Your task to perform on an android device: check data usage Image 0: 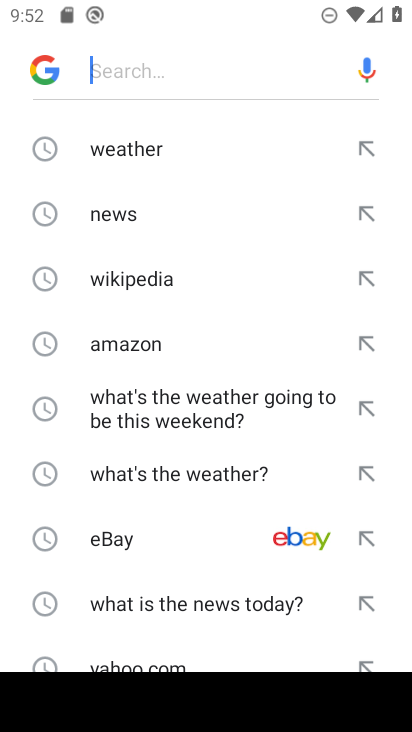
Step 0: press back button
Your task to perform on an android device: check data usage Image 1: 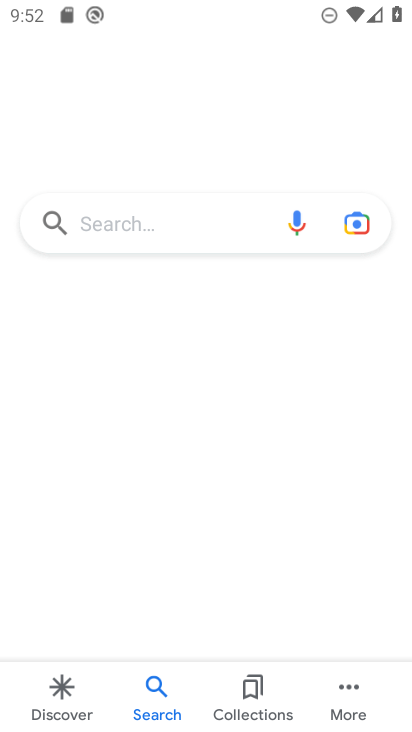
Step 1: press back button
Your task to perform on an android device: check data usage Image 2: 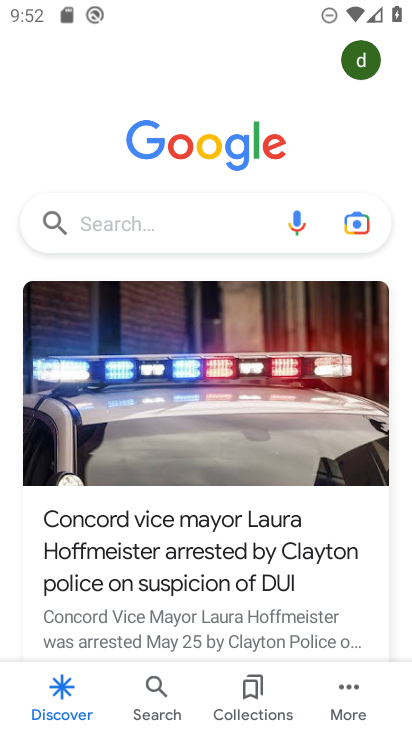
Step 2: press back button
Your task to perform on an android device: check data usage Image 3: 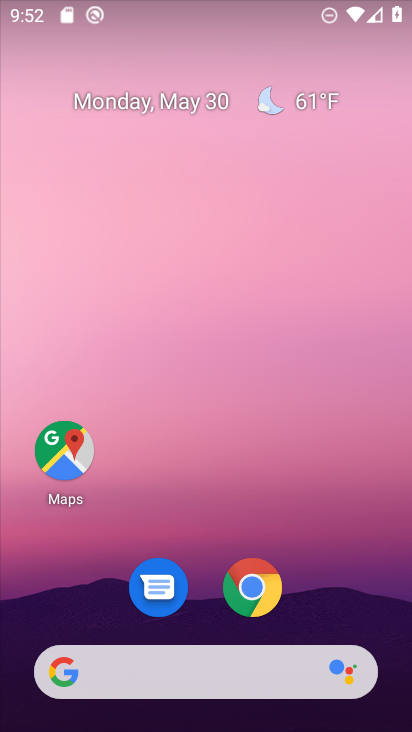
Step 3: drag from (214, 627) to (164, 32)
Your task to perform on an android device: check data usage Image 4: 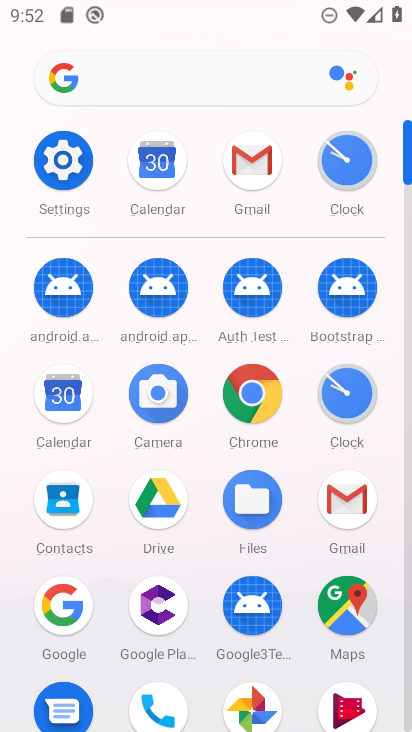
Step 4: click (62, 155)
Your task to perform on an android device: check data usage Image 5: 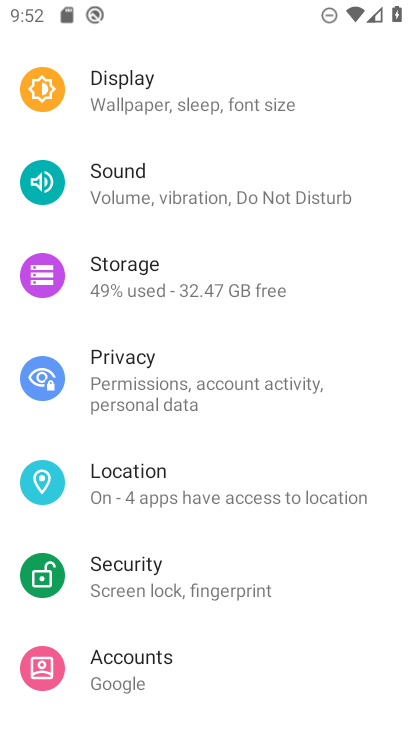
Step 5: drag from (205, 173) to (201, 557)
Your task to perform on an android device: check data usage Image 6: 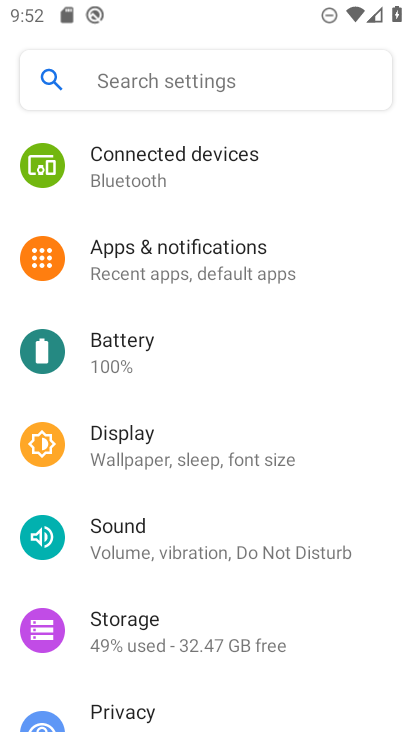
Step 6: drag from (202, 226) to (197, 621)
Your task to perform on an android device: check data usage Image 7: 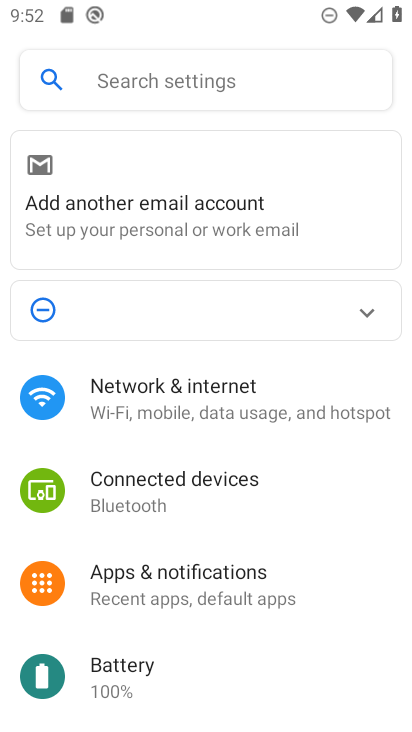
Step 7: click (188, 408)
Your task to perform on an android device: check data usage Image 8: 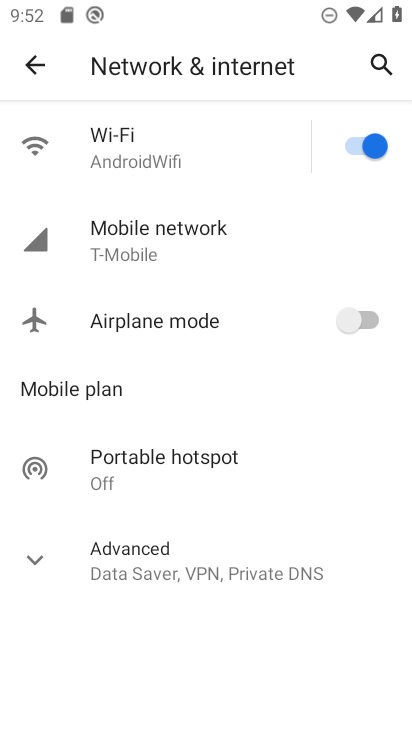
Step 8: click (162, 244)
Your task to perform on an android device: check data usage Image 9: 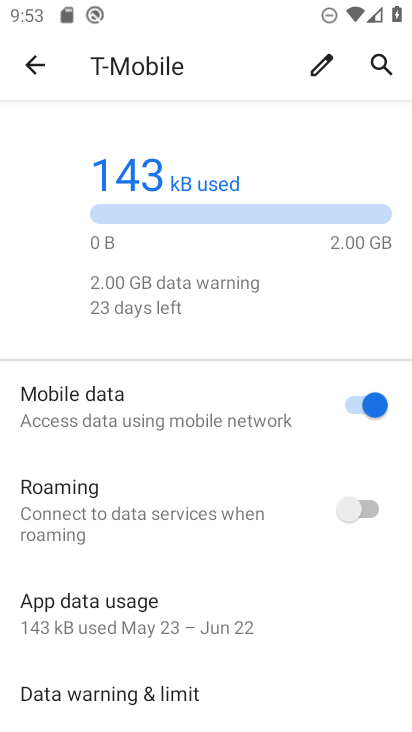
Step 9: task complete